Your task to perform on an android device: Show me recent news Image 0: 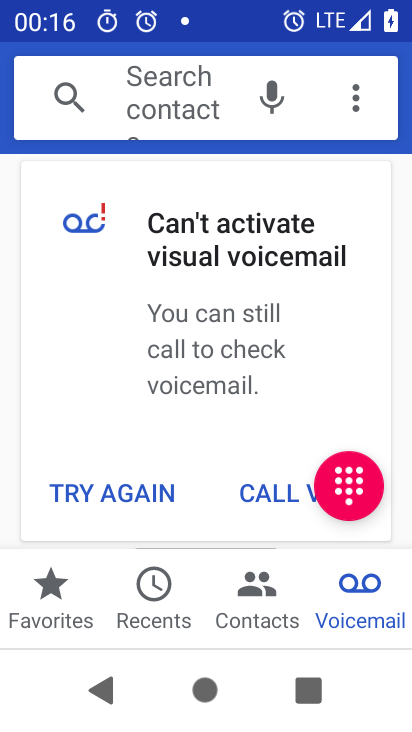
Step 0: press back button
Your task to perform on an android device: Show me recent news Image 1: 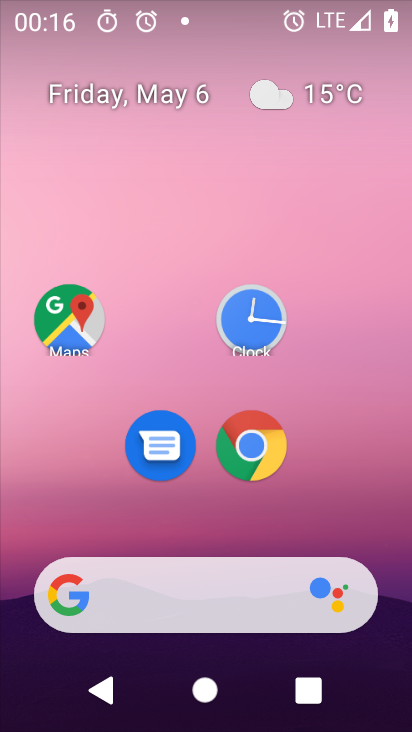
Step 1: task complete